Your task to perform on an android device: turn notification dots on Image 0: 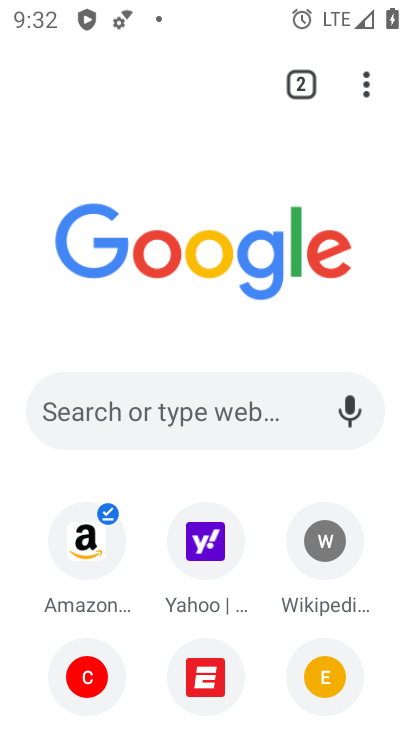
Step 0: press home button
Your task to perform on an android device: turn notification dots on Image 1: 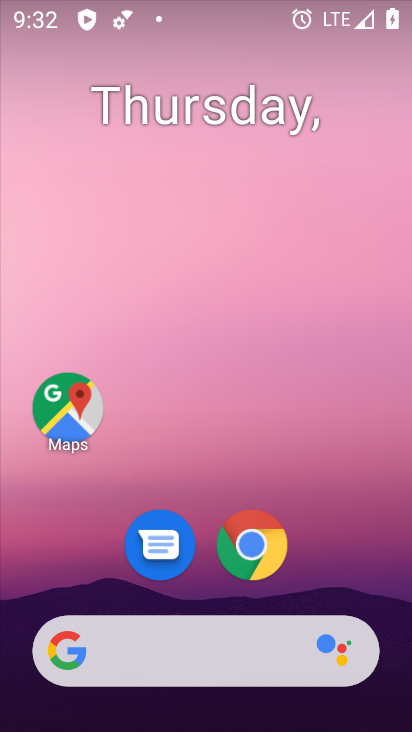
Step 1: drag from (320, 493) to (344, 72)
Your task to perform on an android device: turn notification dots on Image 2: 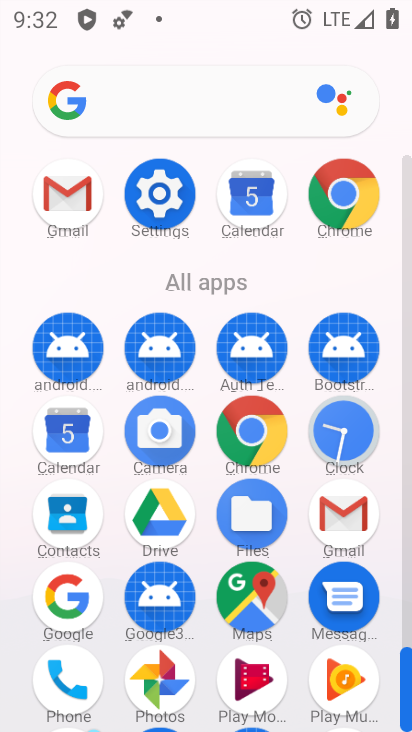
Step 2: click (154, 194)
Your task to perform on an android device: turn notification dots on Image 3: 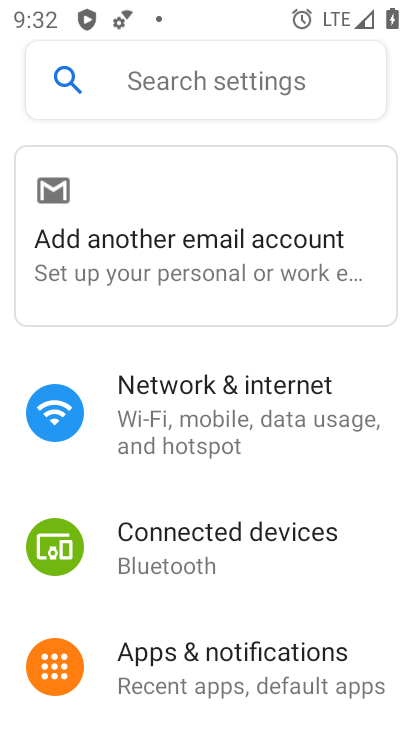
Step 3: click (239, 659)
Your task to perform on an android device: turn notification dots on Image 4: 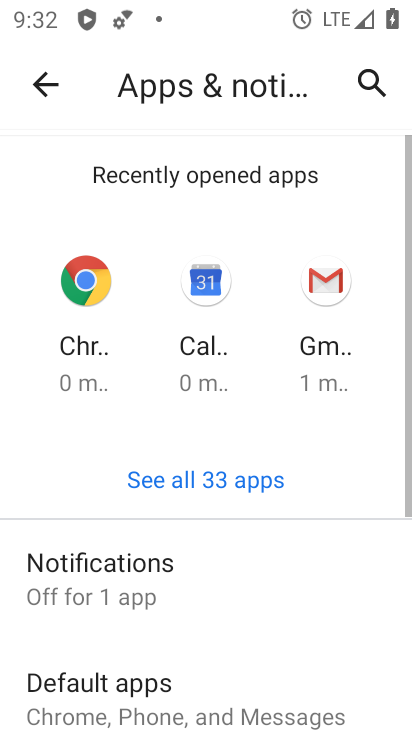
Step 4: drag from (191, 549) to (136, 140)
Your task to perform on an android device: turn notification dots on Image 5: 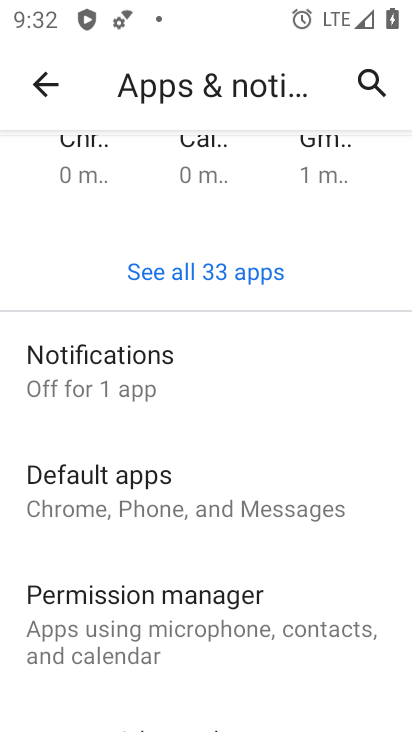
Step 5: click (90, 359)
Your task to perform on an android device: turn notification dots on Image 6: 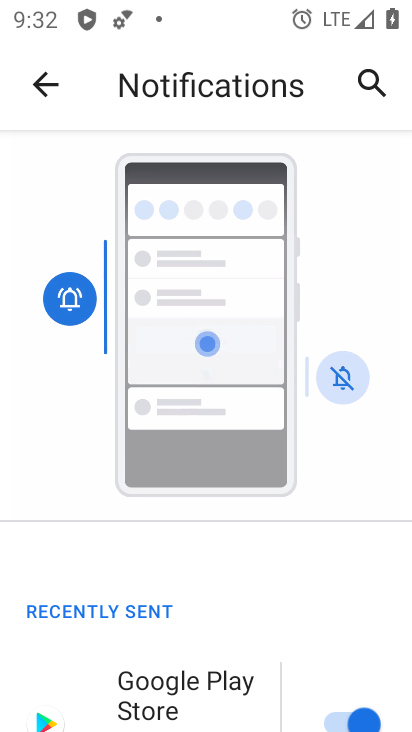
Step 6: drag from (188, 591) to (155, 204)
Your task to perform on an android device: turn notification dots on Image 7: 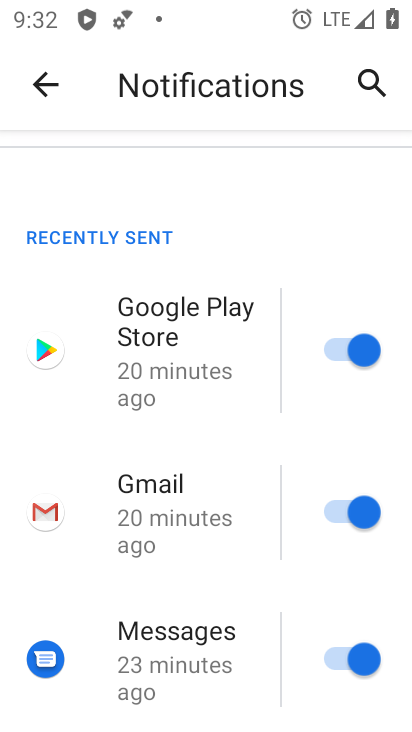
Step 7: drag from (217, 531) to (192, 134)
Your task to perform on an android device: turn notification dots on Image 8: 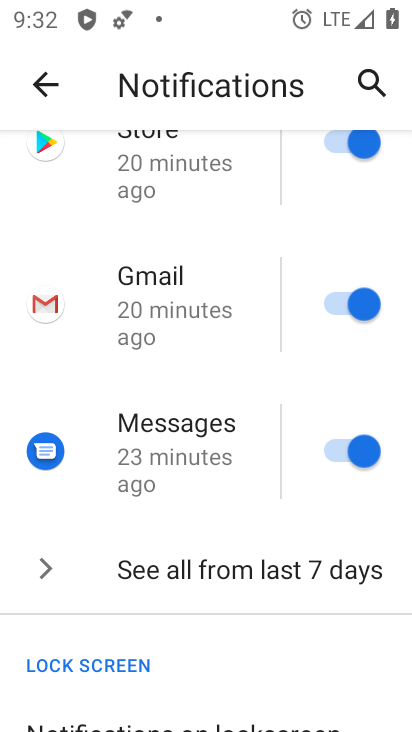
Step 8: drag from (225, 605) to (221, 136)
Your task to perform on an android device: turn notification dots on Image 9: 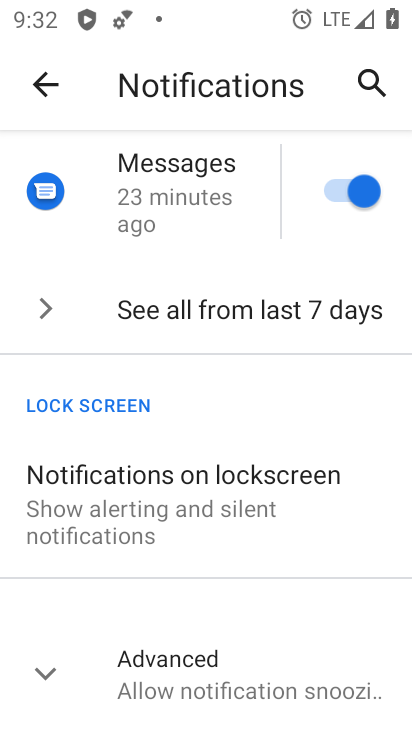
Step 9: click (60, 673)
Your task to perform on an android device: turn notification dots on Image 10: 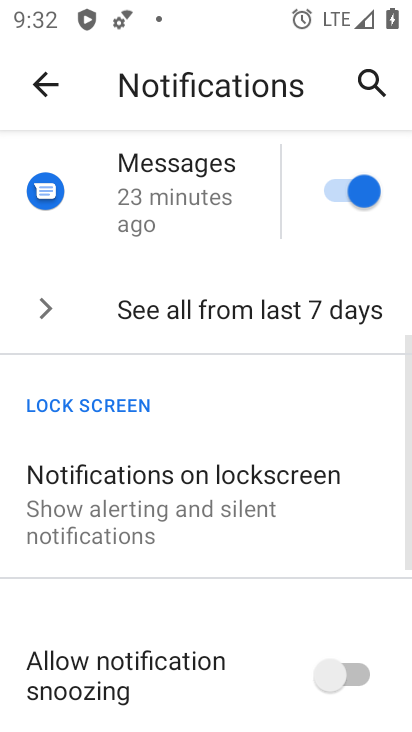
Step 10: task complete